Your task to perform on an android device: delete browsing data in the chrome app Image 0: 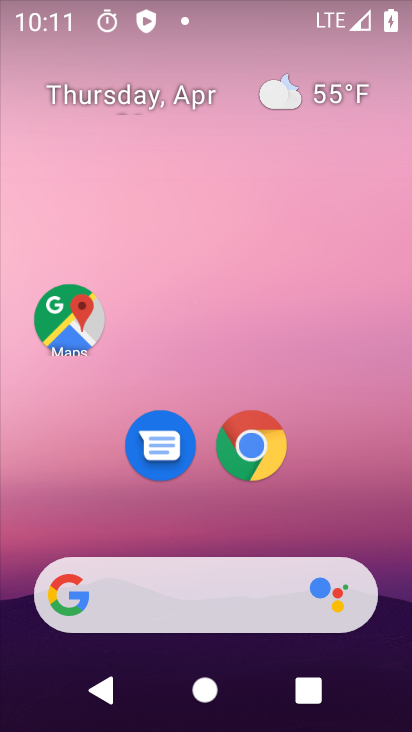
Step 0: click (248, 447)
Your task to perform on an android device: delete browsing data in the chrome app Image 1: 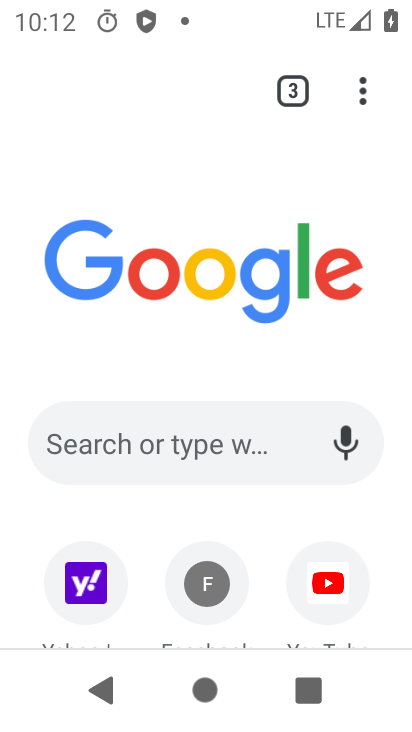
Step 1: click (365, 90)
Your task to perform on an android device: delete browsing data in the chrome app Image 2: 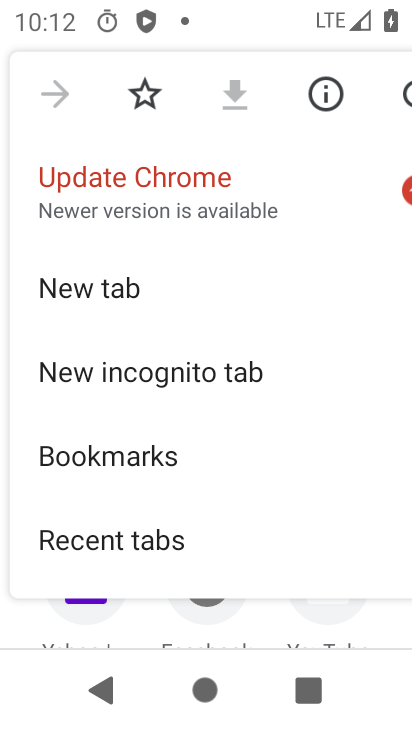
Step 2: drag from (218, 464) to (230, 23)
Your task to perform on an android device: delete browsing data in the chrome app Image 3: 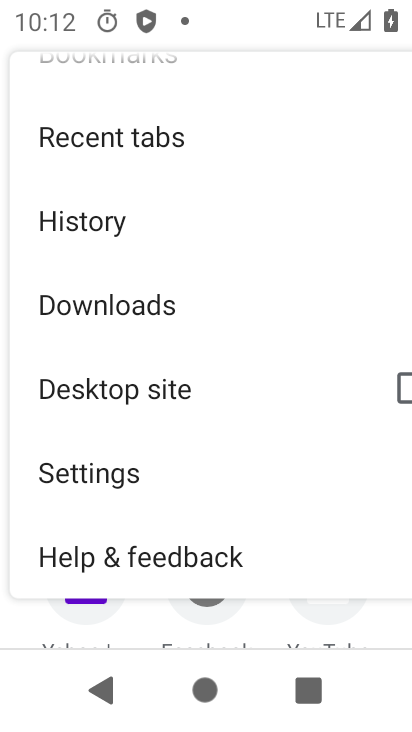
Step 3: click (81, 476)
Your task to perform on an android device: delete browsing data in the chrome app Image 4: 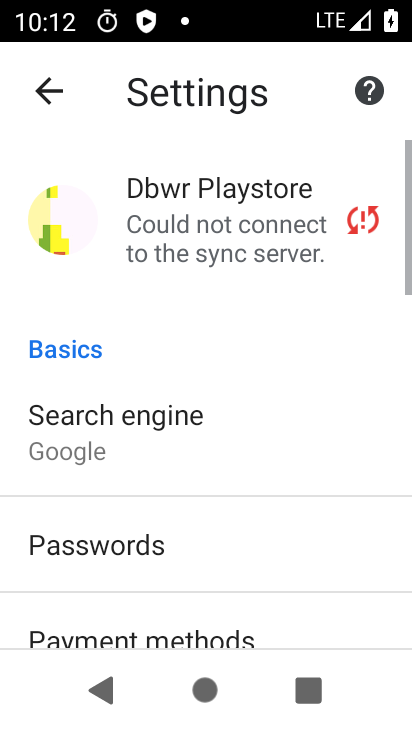
Step 4: drag from (223, 463) to (211, 27)
Your task to perform on an android device: delete browsing data in the chrome app Image 5: 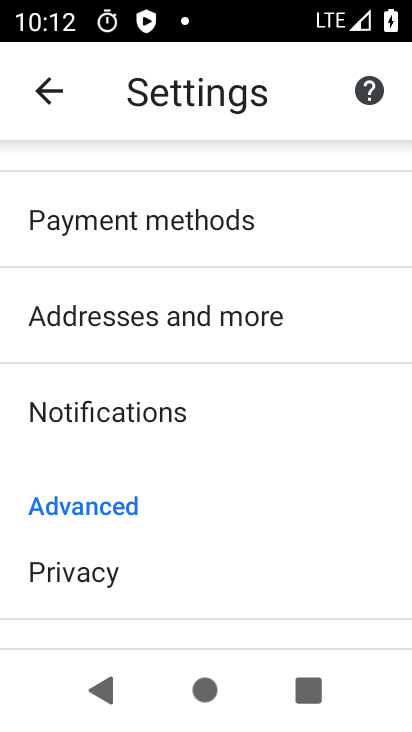
Step 5: click (74, 577)
Your task to perform on an android device: delete browsing data in the chrome app Image 6: 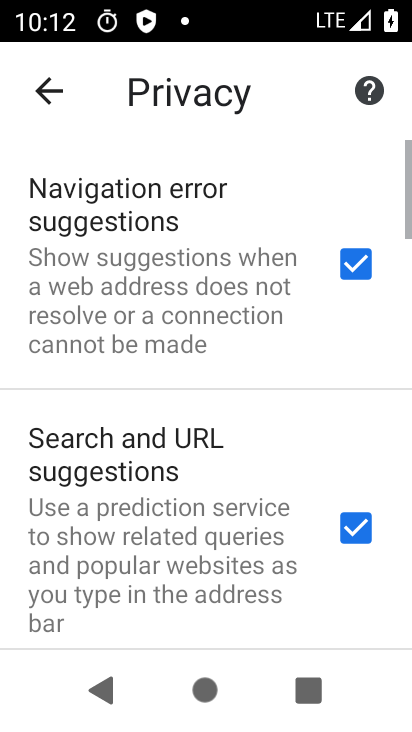
Step 6: drag from (211, 576) to (206, 21)
Your task to perform on an android device: delete browsing data in the chrome app Image 7: 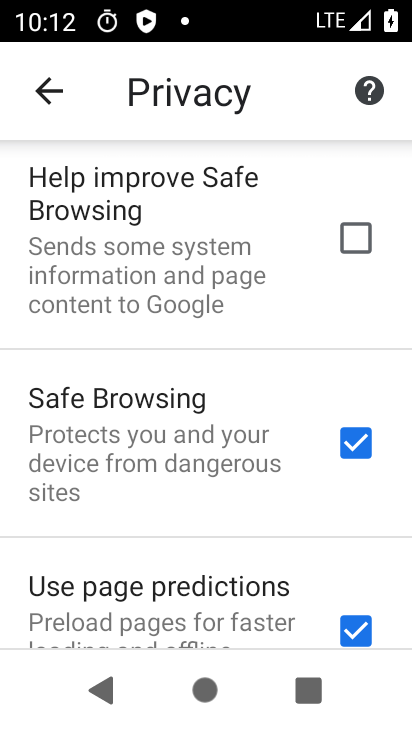
Step 7: drag from (204, 525) to (204, 51)
Your task to perform on an android device: delete browsing data in the chrome app Image 8: 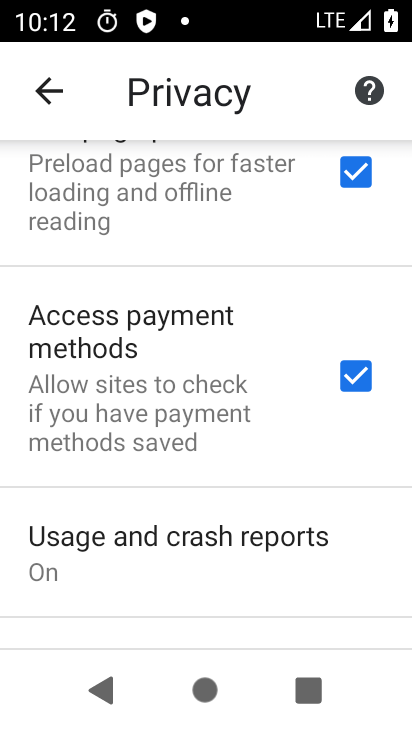
Step 8: drag from (173, 513) to (179, 86)
Your task to perform on an android device: delete browsing data in the chrome app Image 9: 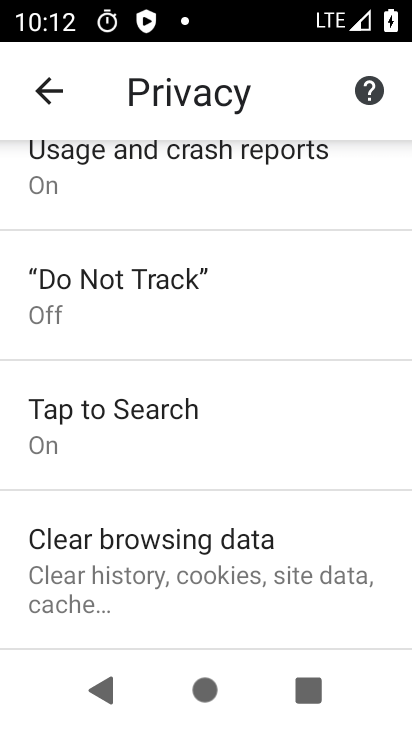
Step 9: click (199, 543)
Your task to perform on an android device: delete browsing data in the chrome app Image 10: 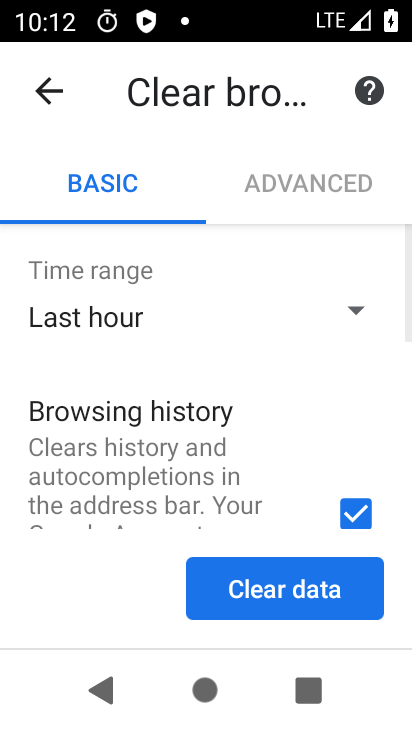
Step 10: drag from (170, 481) to (172, 156)
Your task to perform on an android device: delete browsing data in the chrome app Image 11: 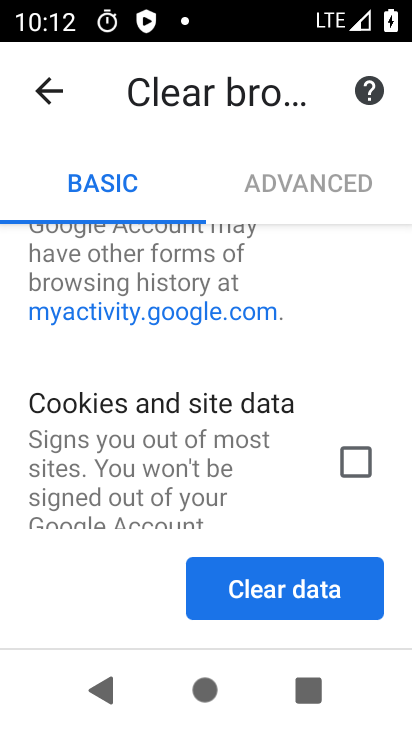
Step 11: drag from (229, 450) to (229, 205)
Your task to perform on an android device: delete browsing data in the chrome app Image 12: 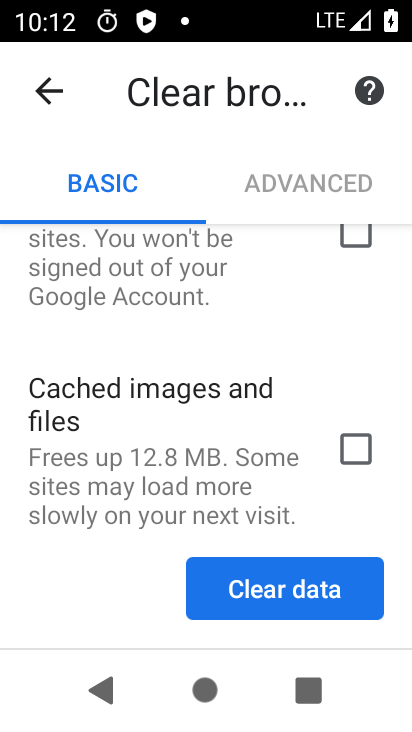
Step 12: click (275, 612)
Your task to perform on an android device: delete browsing data in the chrome app Image 13: 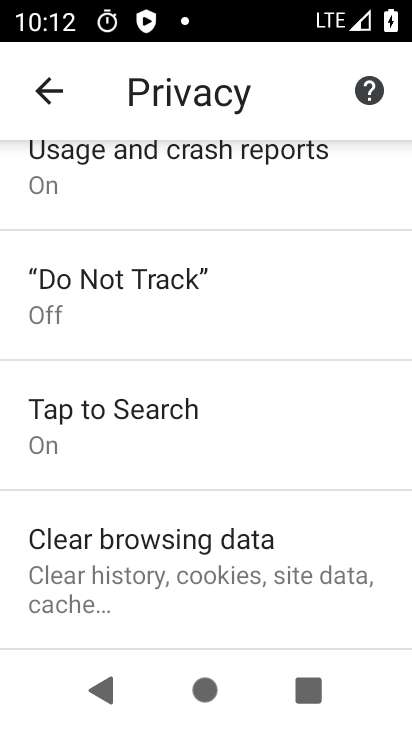
Step 13: task complete